Your task to perform on an android device: star an email in the gmail app Image 0: 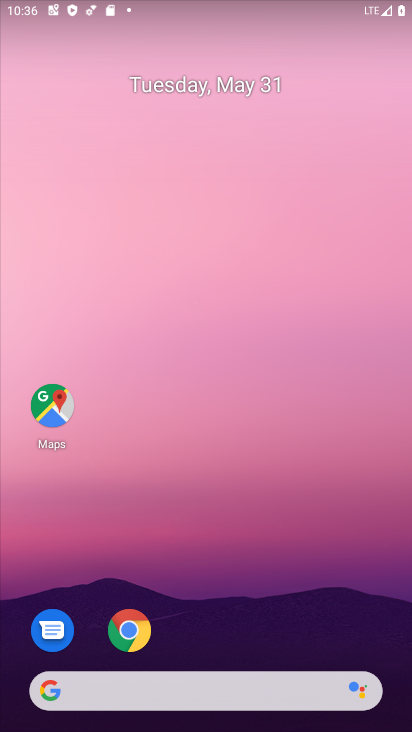
Step 0: drag from (307, 617) to (159, 3)
Your task to perform on an android device: star an email in the gmail app Image 1: 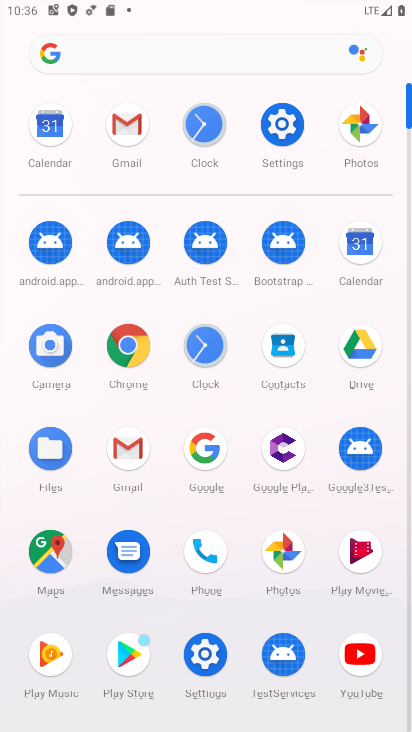
Step 1: click (129, 127)
Your task to perform on an android device: star an email in the gmail app Image 2: 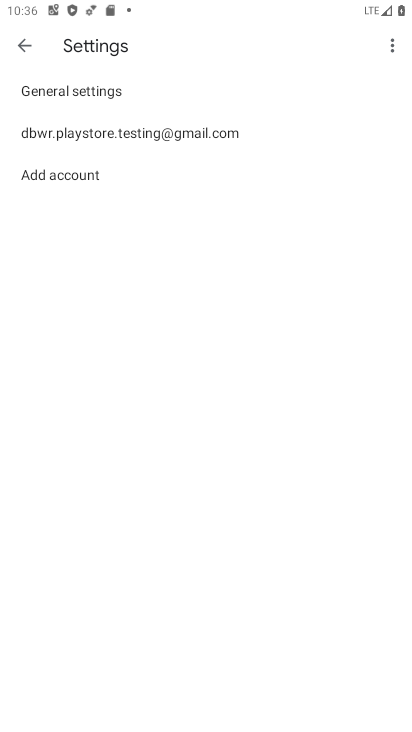
Step 2: click (85, 139)
Your task to perform on an android device: star an email in the gmail app Image 3: 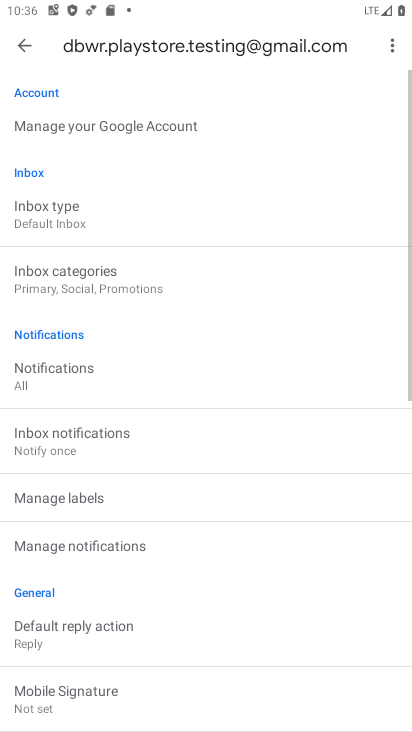
Step 3: click (17, 37)
Your task to perform on an android device: star an email in the gmail app Image 4: 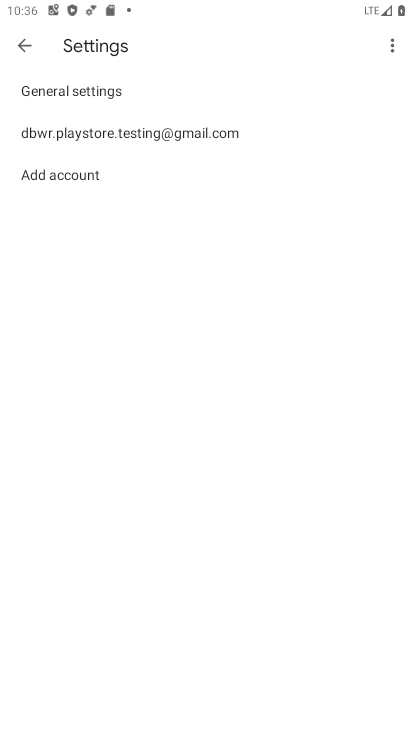
Step 4: click (19, 37)
Your task to perform on an android device: star an email in the gmail app Image 5: 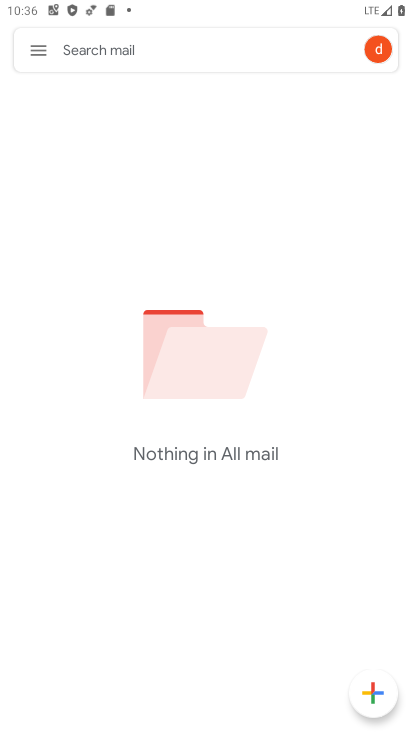
Step 5: click (26, 47)
Your task to perform on an android device: star an email in the gmail app Image 6: 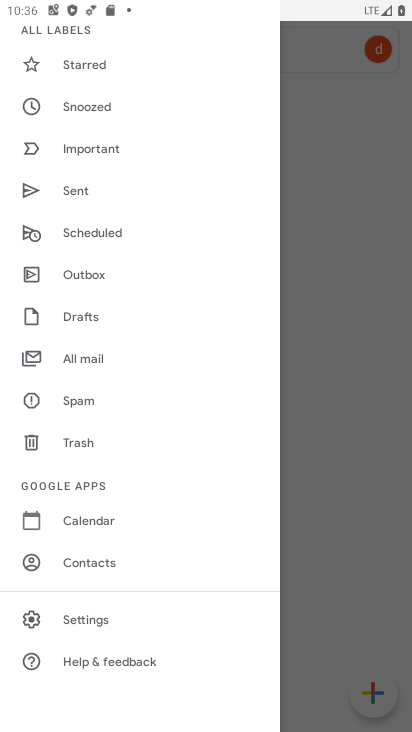
Step 6: click (97, 61)
Your task to perform on an android device: star an email in the gmail app Image 7: 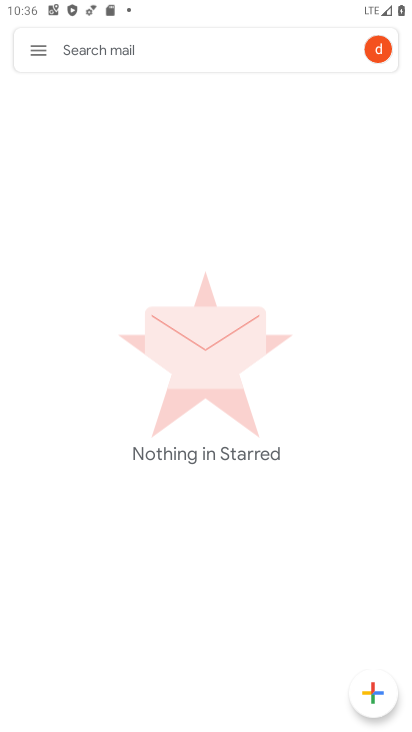
Step 7: task complete